Your task to perform on an android device: What is the news today? Image 0: 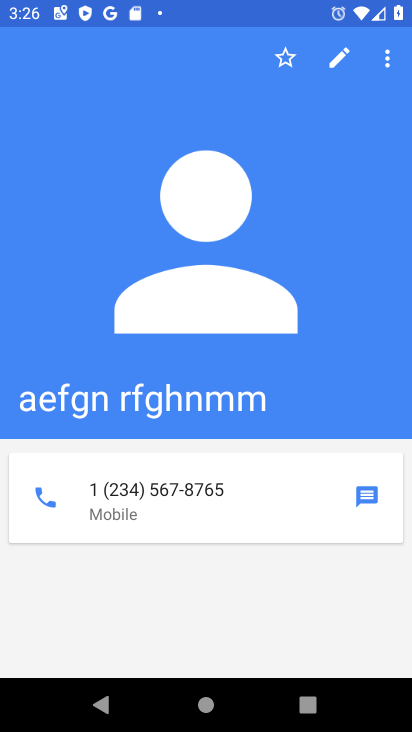
Step 0: press home button
Your task to perform on an android device: What is the news today? Image 1: 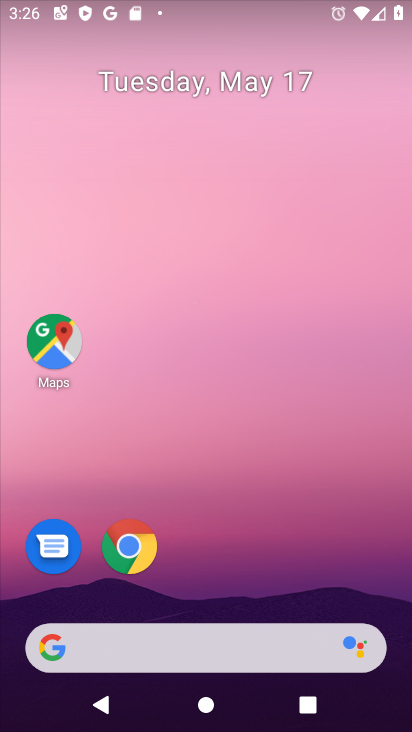
Step 1: drag from (3, 223) to (218, 225)
Your task to perform on an android device: What is the news today? Image 2: 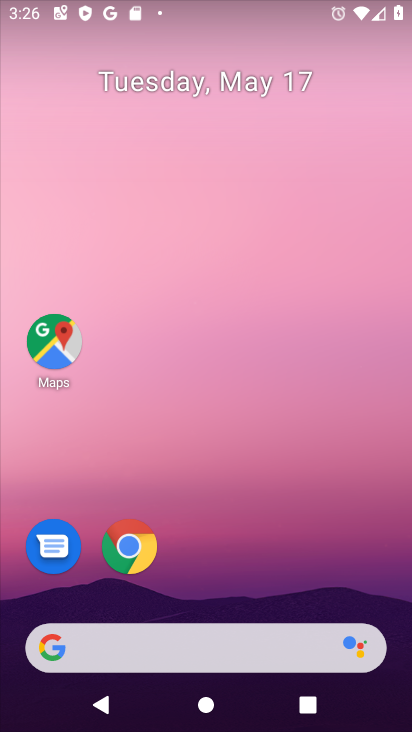
Step 2: drag from (2, 250) to (311, 293)
Your task to perform on an android device: What is the news today? Image 3: 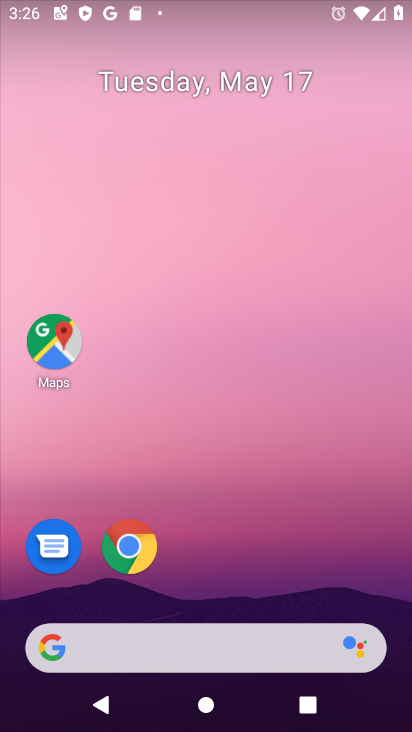
Step 3: drag from (17, 263) to (327, 261)
Your task to perform on an android device: What is the news today? Image 4: 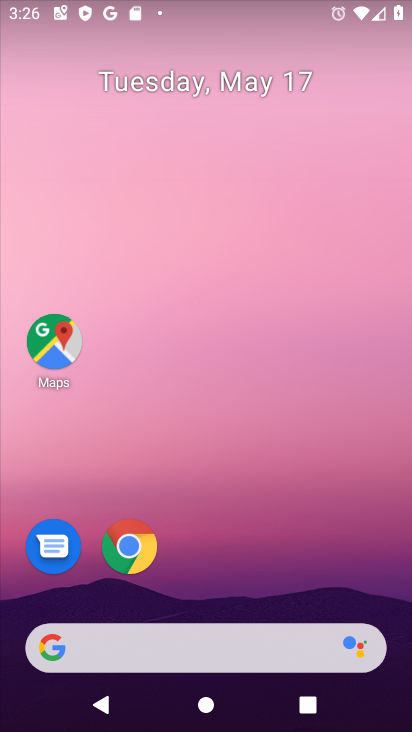
Step 4: drag from (392, 659) to (324, 265)
Your task to perform on an android device: What is the news today? Image 5: 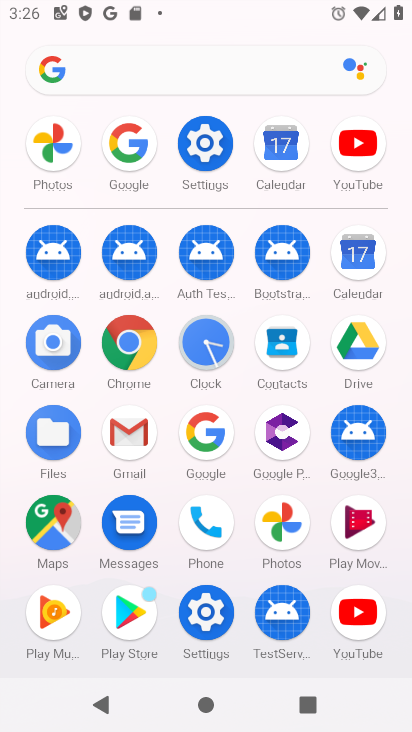
Step 5: click (193, 433)
Your task to perform on an android device: What is the news today? Image 6: 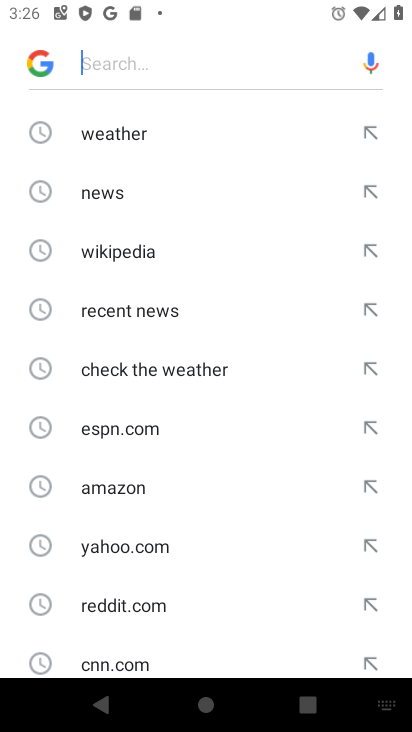
Step 6: click (100, 190)
Your task to perform on an android device: What is the news today? Image 7: 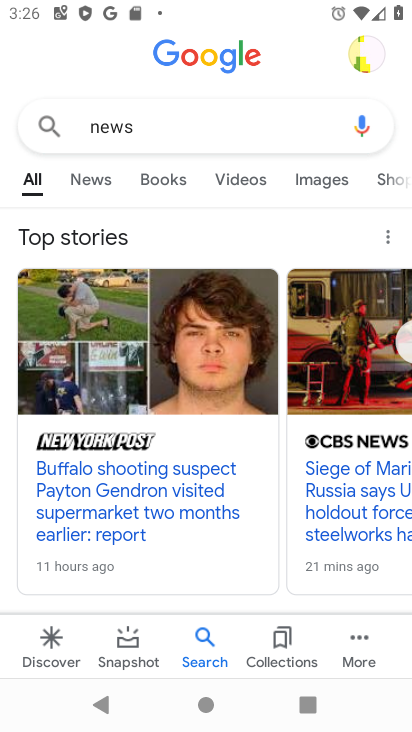
Step 7: task complete